Your task to perform on an android device: turn off smart reply in the gmail app Image 0: 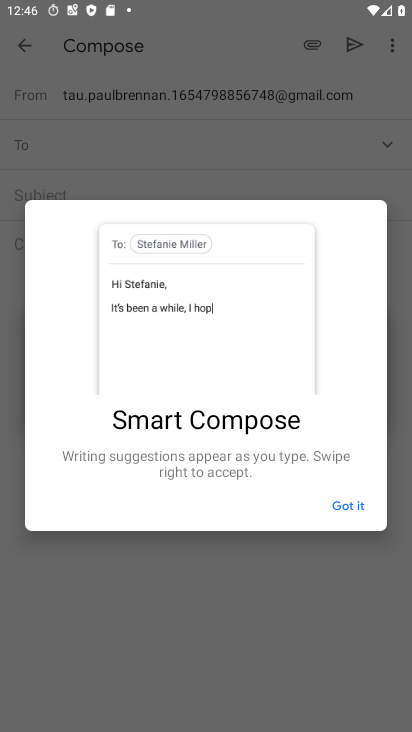
Step 0: press home button
Your task to perform on an android device: turn off smart reply in the gmail app Image 1: 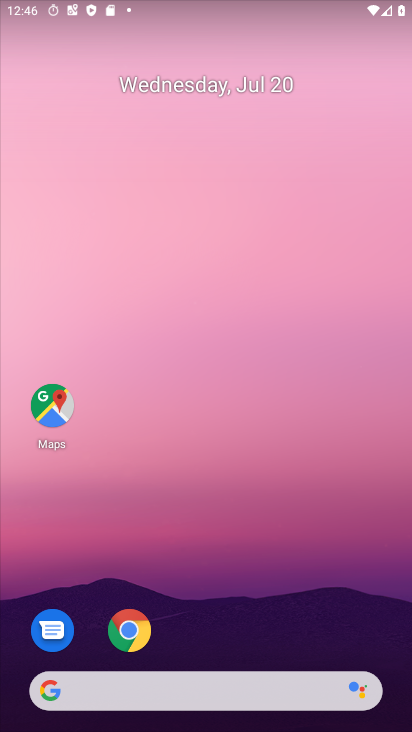
Step 1: drag from (335, 588) to (364, 153)
Your task to perform on an android device: turn off smart reply in the gmail app Image 2: 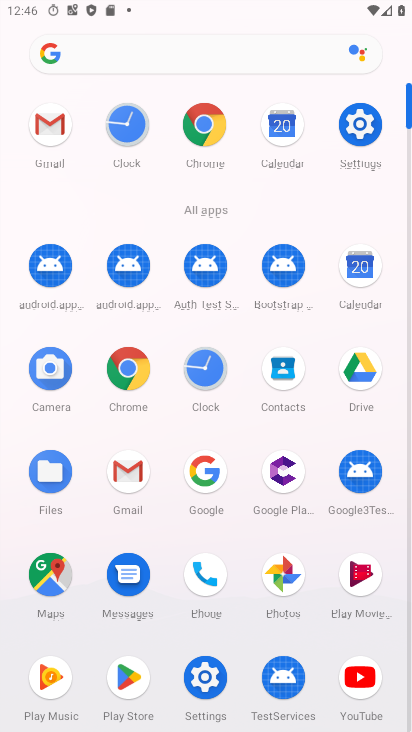
Step 2: click (59, 131)
Your task to perform on an android device: turn off smart reply in the gmail app Image 3: 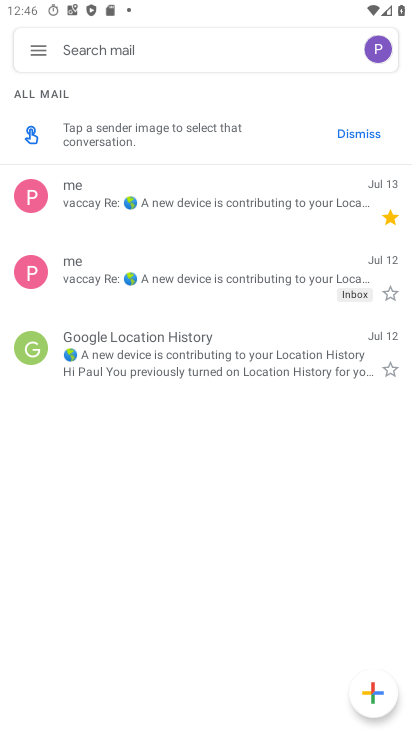
Step 3: click (22, 57)
Your task to perform on an android device: turn off smart reply in the gmail app Image 4: 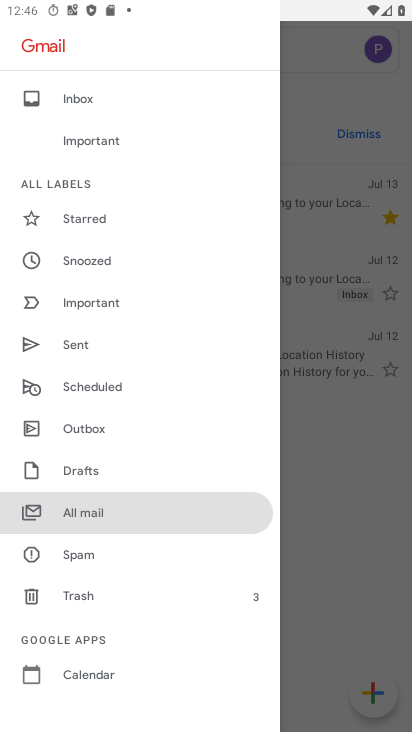
Step 4: drag from (124, 613) to (106, 65)
Your task to perform on an android device: turn off smart reply in the gmail app Image 5: 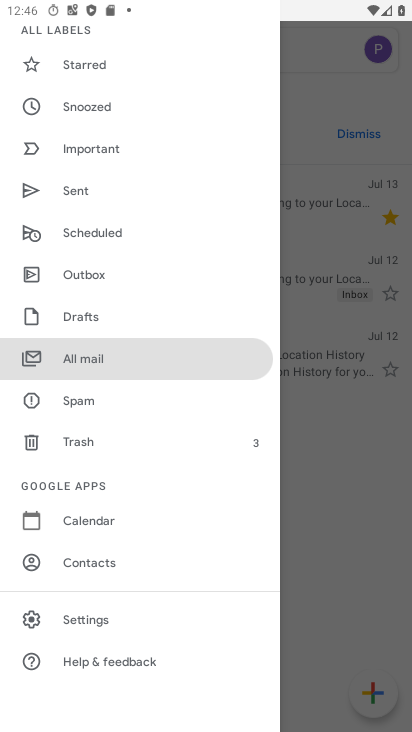
Step 5: click (149, 613)
Your task to perform on an android device: turn off smart reply in the gmail app Image 6: 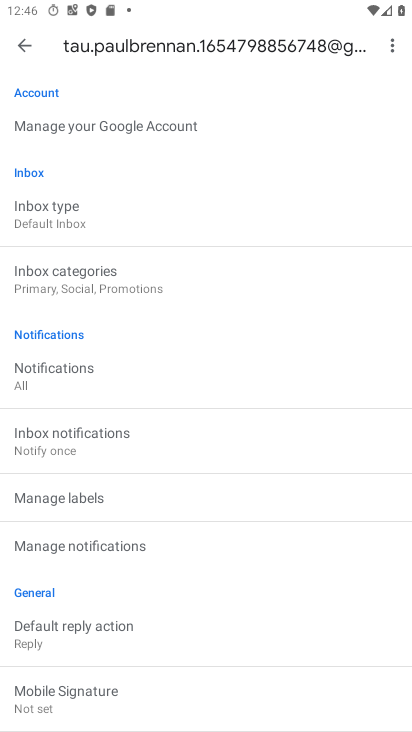
Step 6: drag from (190, 637) to (191, 332)
Your task to perform on an android device: turn off smart reply in the gmail app Image 7: 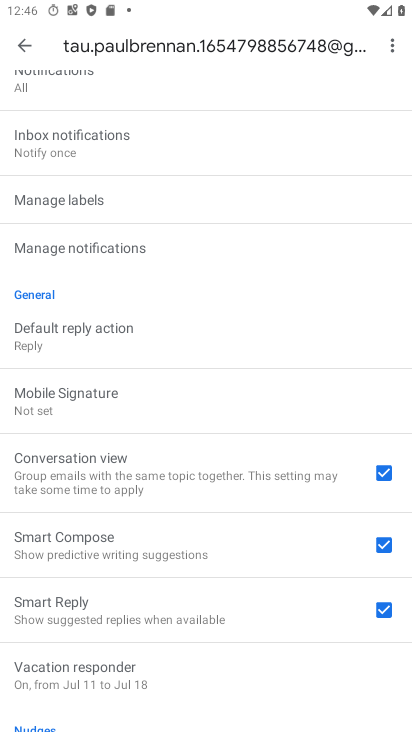
Step 7: click (383, 606)
Your task to perform on an android device: turn off smart reply in the gmail app Image 8: 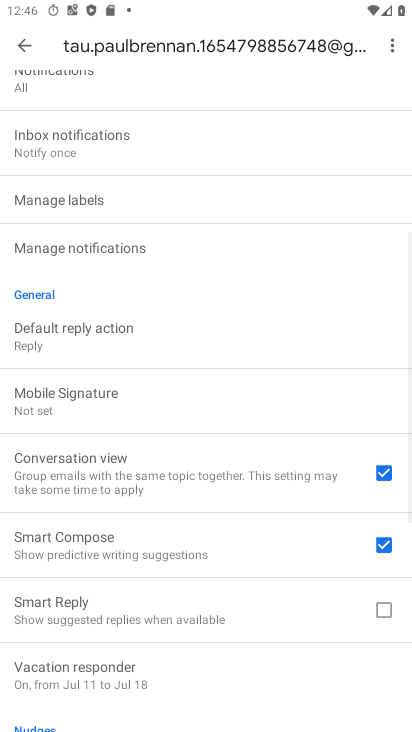
Step 8: task complete